Your task to perform on an android device: Open display settings Image 0: 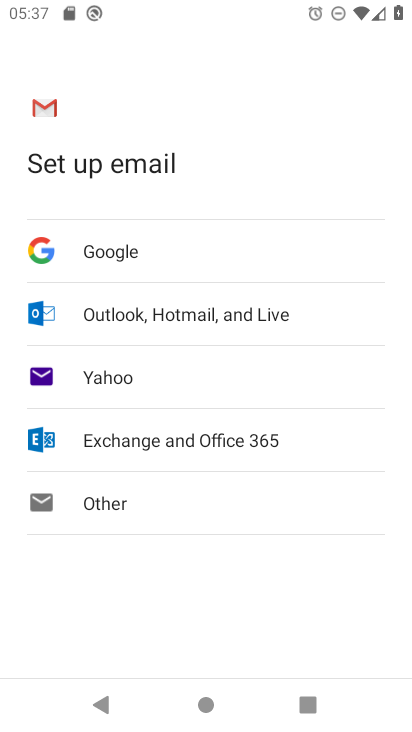
Step 0: press back button
Your task to perform on an android device: Open display settings Image 1: 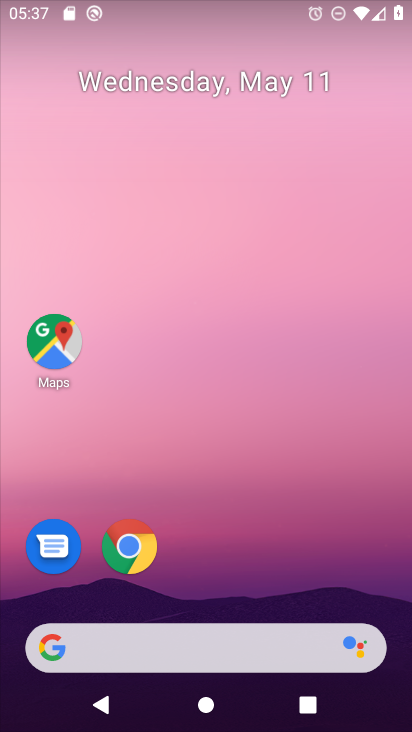
Step 1: drag from (323, 590) to (329, 46)
Your task to perform on an android device: Open display settings Image 2: 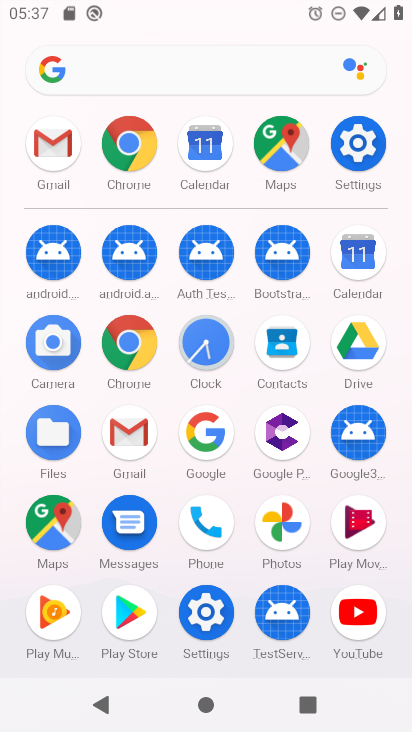
Step 2: click (358, 200)
Your task to perform on an android device: Open display settings Image 3: 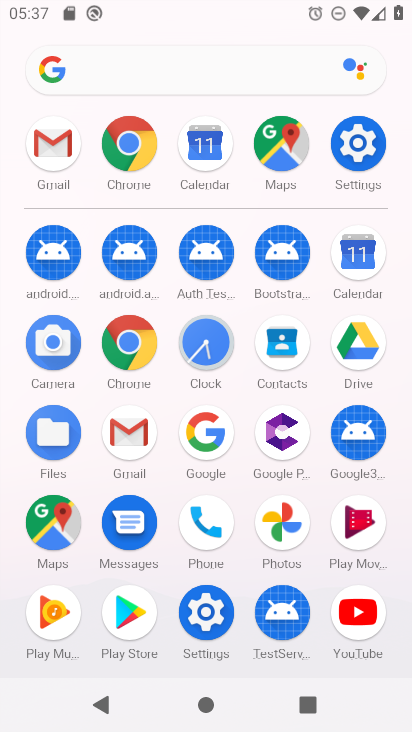
Step 3: click (376, 147)
Your task to perform on an android device: Open display settings Image 4: 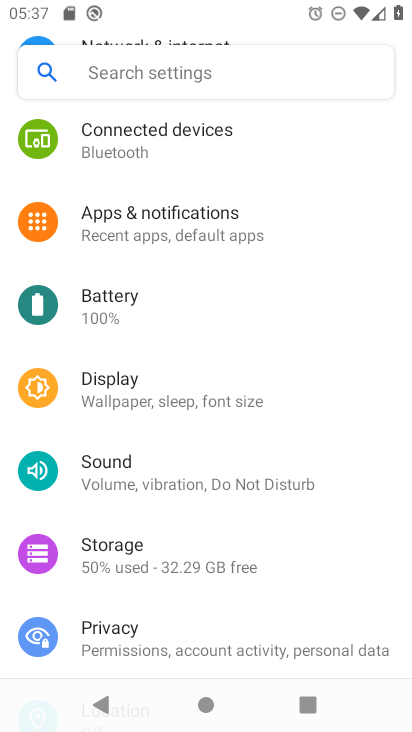
Step 4: click (280, 387)
Your task to perform on an android device: Open display settings Image 5: 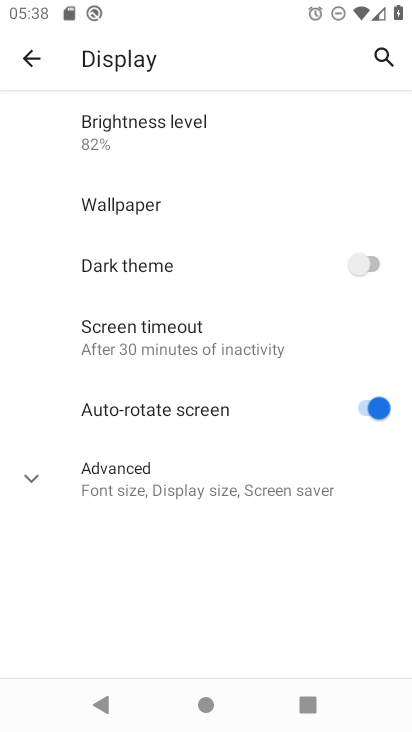
Step 5: press back button
Your task to perform on an android device: Open display settings Image 6: 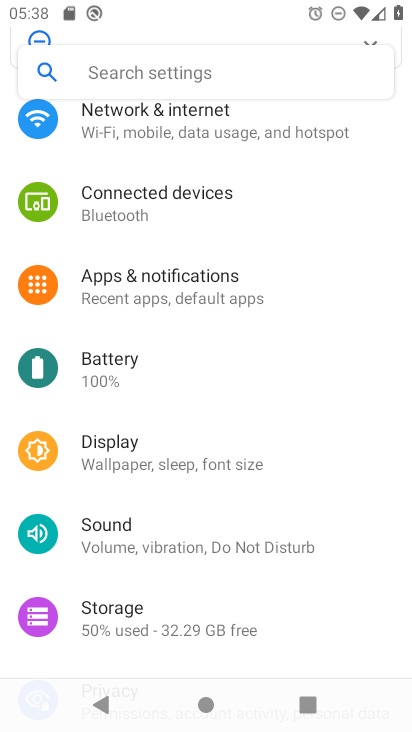
Step 6: click (158, 369)
Your task to perform on an android device: Open display settings Image 7: 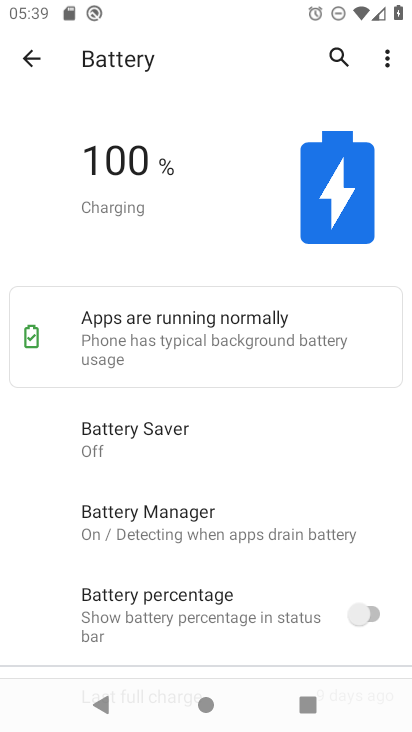
Step 7: drag from (278, 605) to (282, 55)
Your task to perform on an android device: Open display settings Image 8: 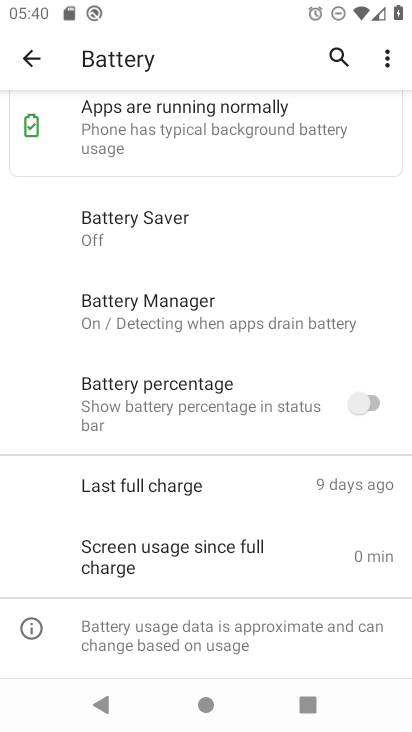
Step 8: press back button
Your task to perform on an android device: Open display settings Image 9: 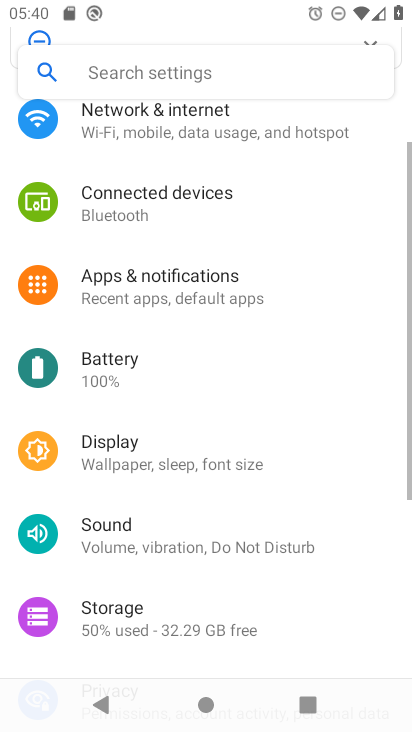
Step 9: click (146, 454)
Your task to perform on an android device: Open display settings Image 10: 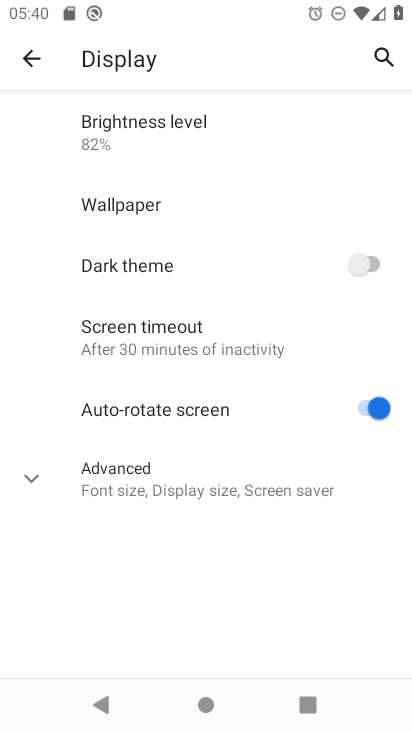
Step 10: task complete